Your task to perform on an android device: Go to Wikipedia Image 0: 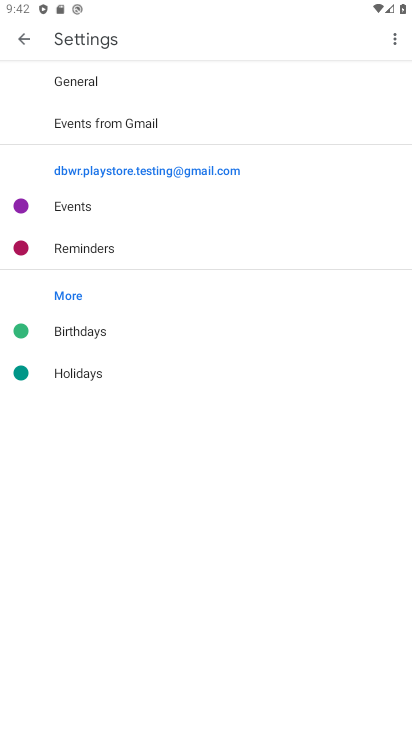
Step 0: press home button
Your task to perform on an android device: Go to Wikipedia Image 1: 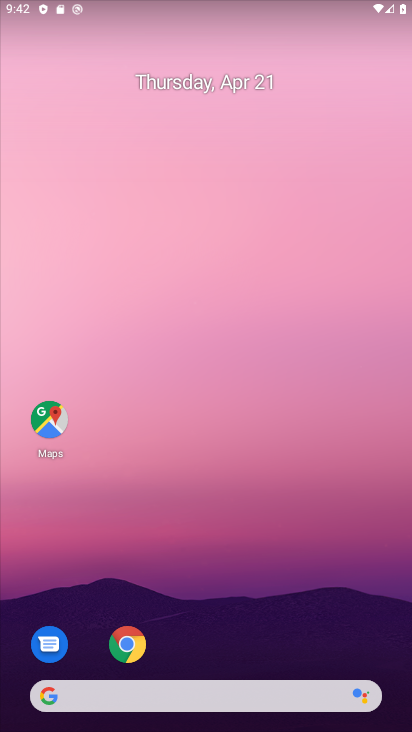
Step 1: click (131, 645)
Your task to perform on an android device: Go to Wikipedia Image 2: 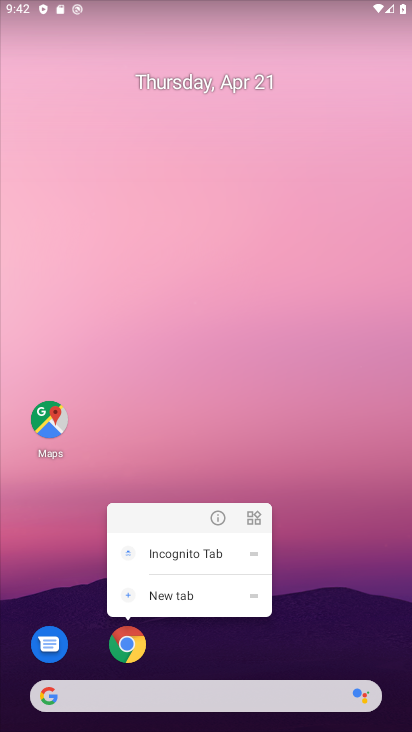
Step 2: click (131, 645)
Your task to perform on an android device: Go to Wikipedia Image 3: 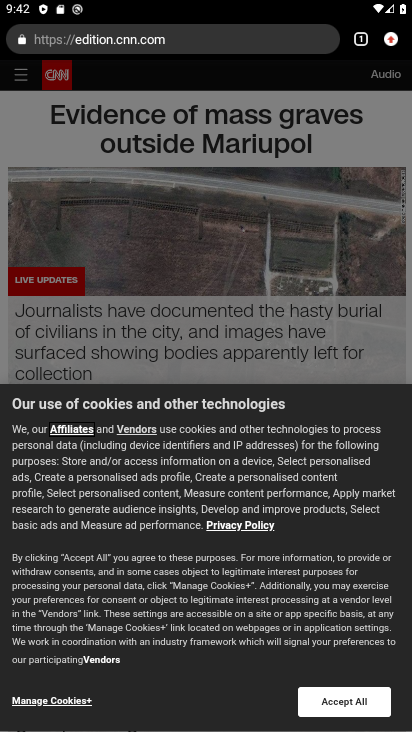
Step 3: click (363, 41)
Your task to perform on an android device: Go to Wikipedia Image 4: 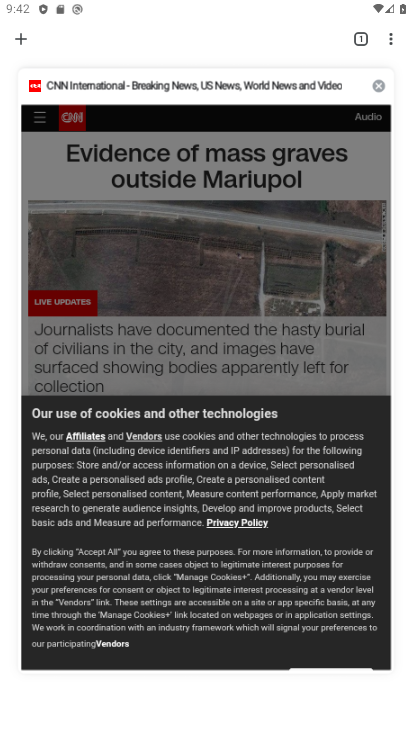
Step 4: click (22, 46)
Your task to perform on an android device: Go to Wikipedia Image 5: 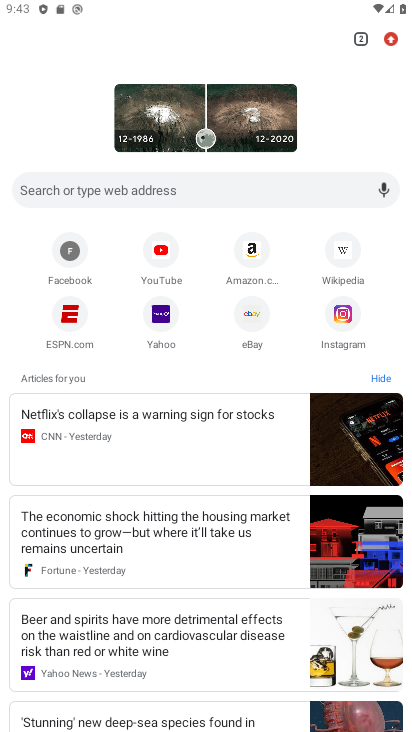
Step 5: click (342, 257)
Your task to perform on an android device: Go to Wikipedia Image 6: 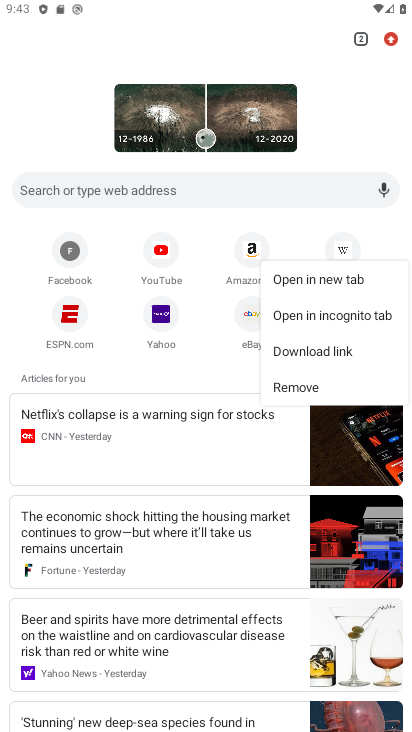
Step 6: click (343, 246)
Your task to perform on an android device: Go to Wikipedia Image 7: 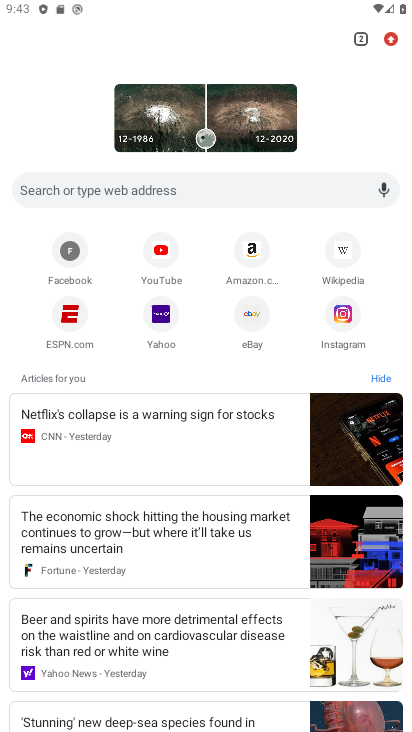
Step 7: click (338, 249)
Your task to perform on an android device: Go to Wikipedia Image 8: 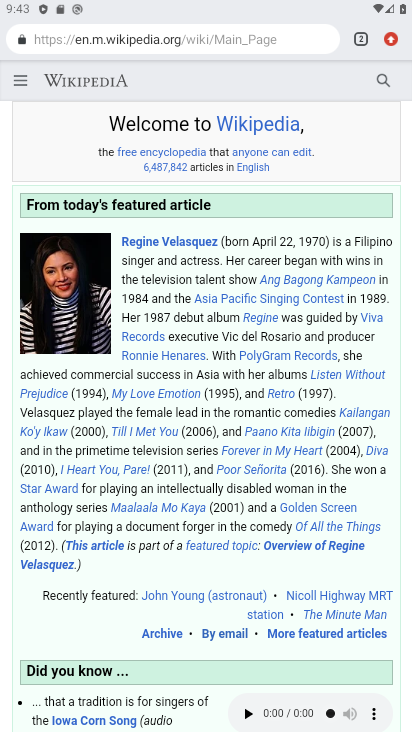
Step 8: task complete